Your task to perform on an android device: Go to Wikipedia Image 0: 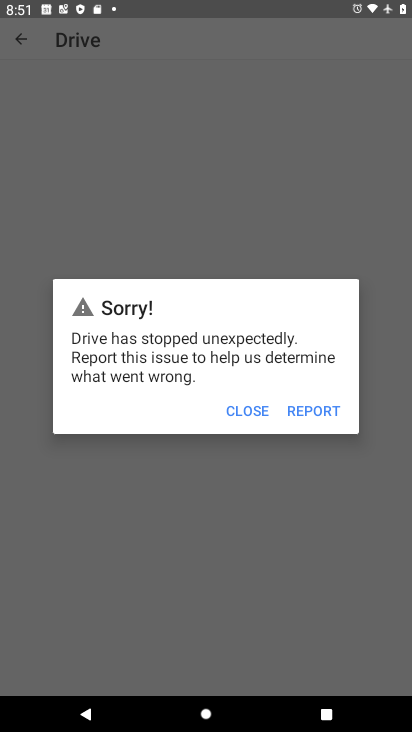
Step 0: press home button
Your task to perform on an android device: Go to Wikipedia Image 1: 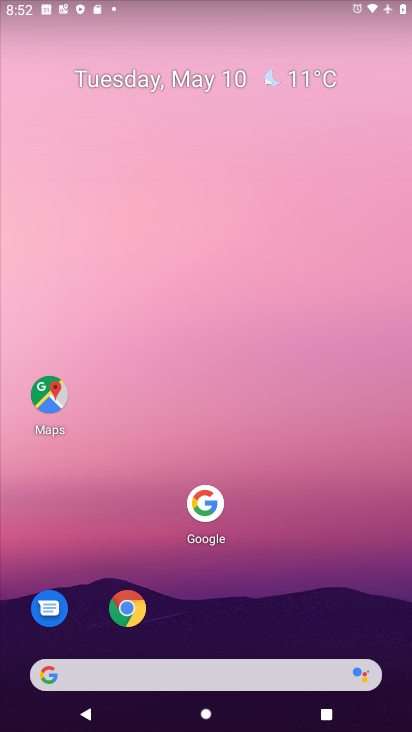
Step 1: drag from (178, 681) to (245, 281)
Your task to perform on an android device: Go to Wikipedia Image 2: 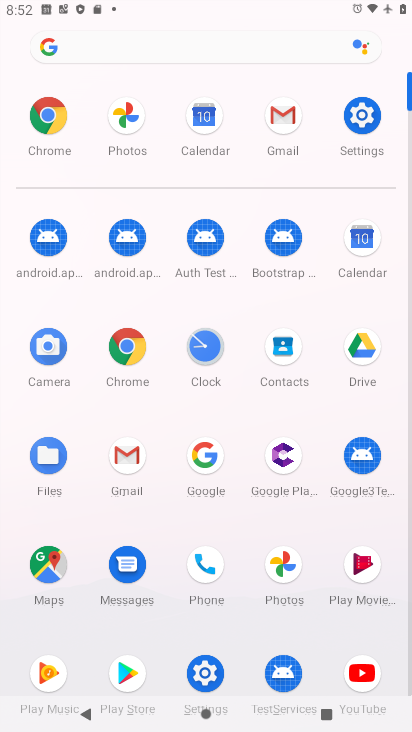
Step 2: click (53, 128)
Your task to perform on an android device: Go to Wikipedia Image 3: 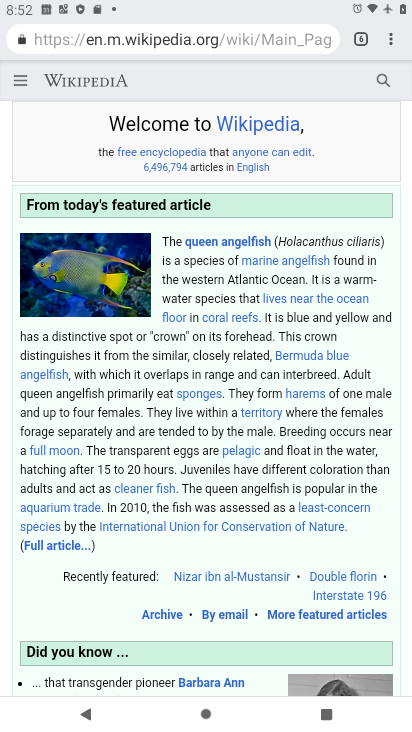
Step 3: task complete